Your task to perform on an android device: Find coffee shops on Maps Image 0: 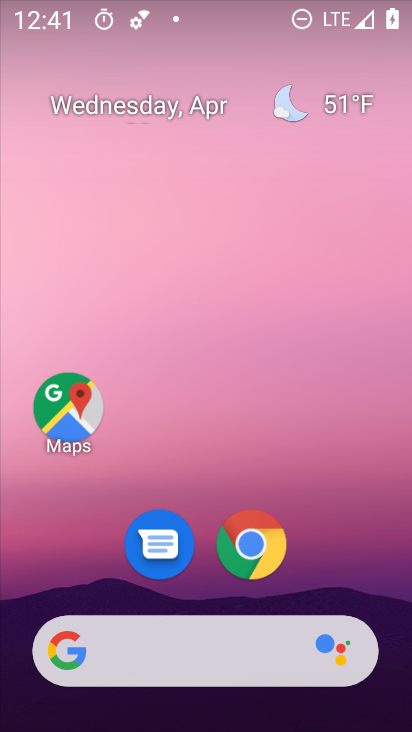
Step 0: drag from (357, 575) to (332, 100)
Your task to perform on an android device: Find coffee shops on Maps Image 1: 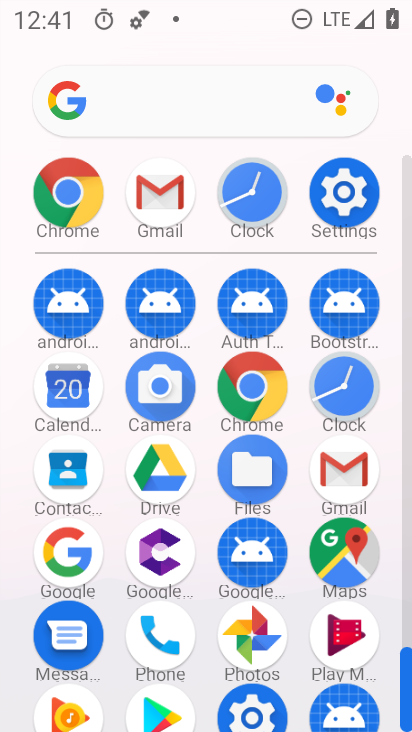
Step 1: click (349, 559)
Your task to perform on an android device: Find coffee shops on Maps Image 2: 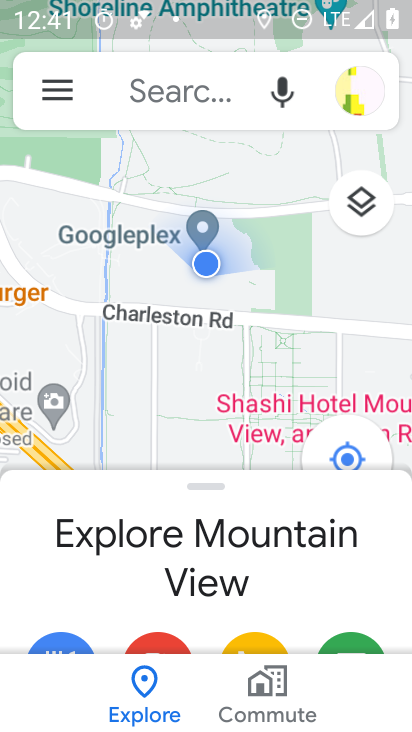
Step 2: click (197, 112)
Your task to perform on an android device: Find coffee shops on Maps Image 3: 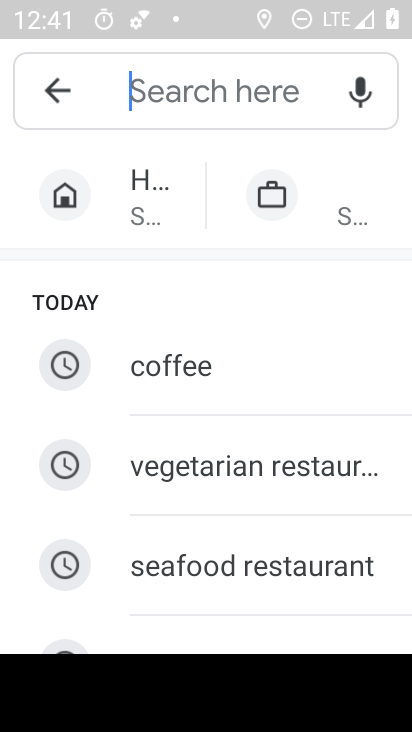
Step 3: type "coffee"
Your task to perform on an android device: Find coffee shops on Maps Image 4: 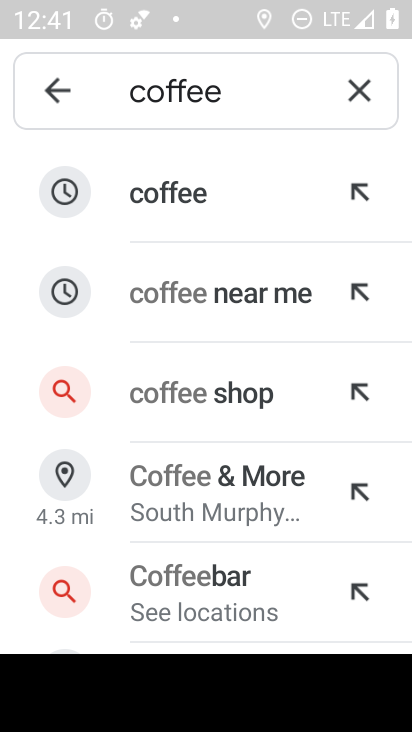
Step 4: click (199, 197)
Your task to perform on an android device: Find coffee shops on Maps Image 5: 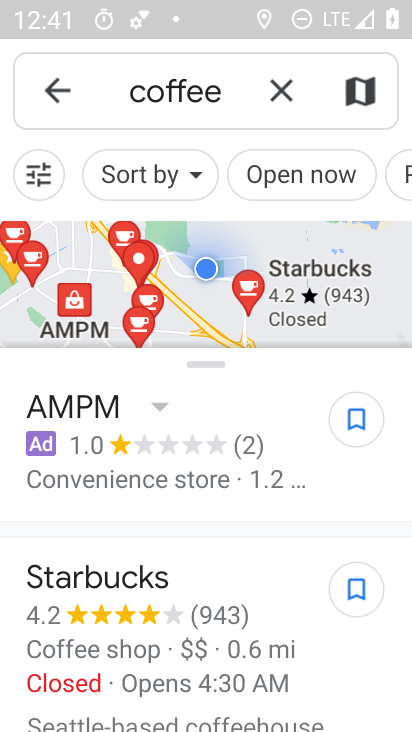
Step 5: task complete